Your task to perform on an android device: uninstall "Facebook Lite" Image 0: 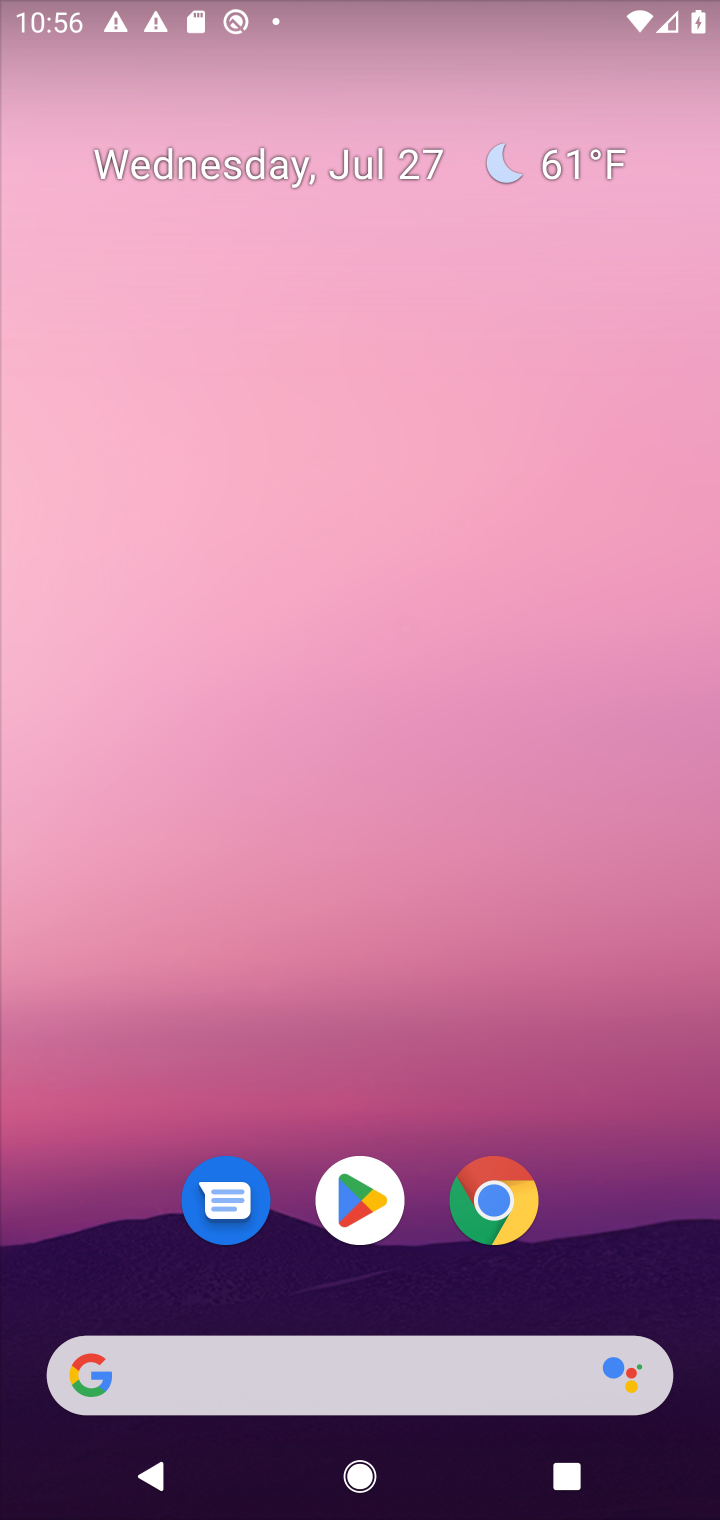
Step 0: click (344, 1211)
Your task to perform on an android device: uninstall "Facebook Lite" Image 1: 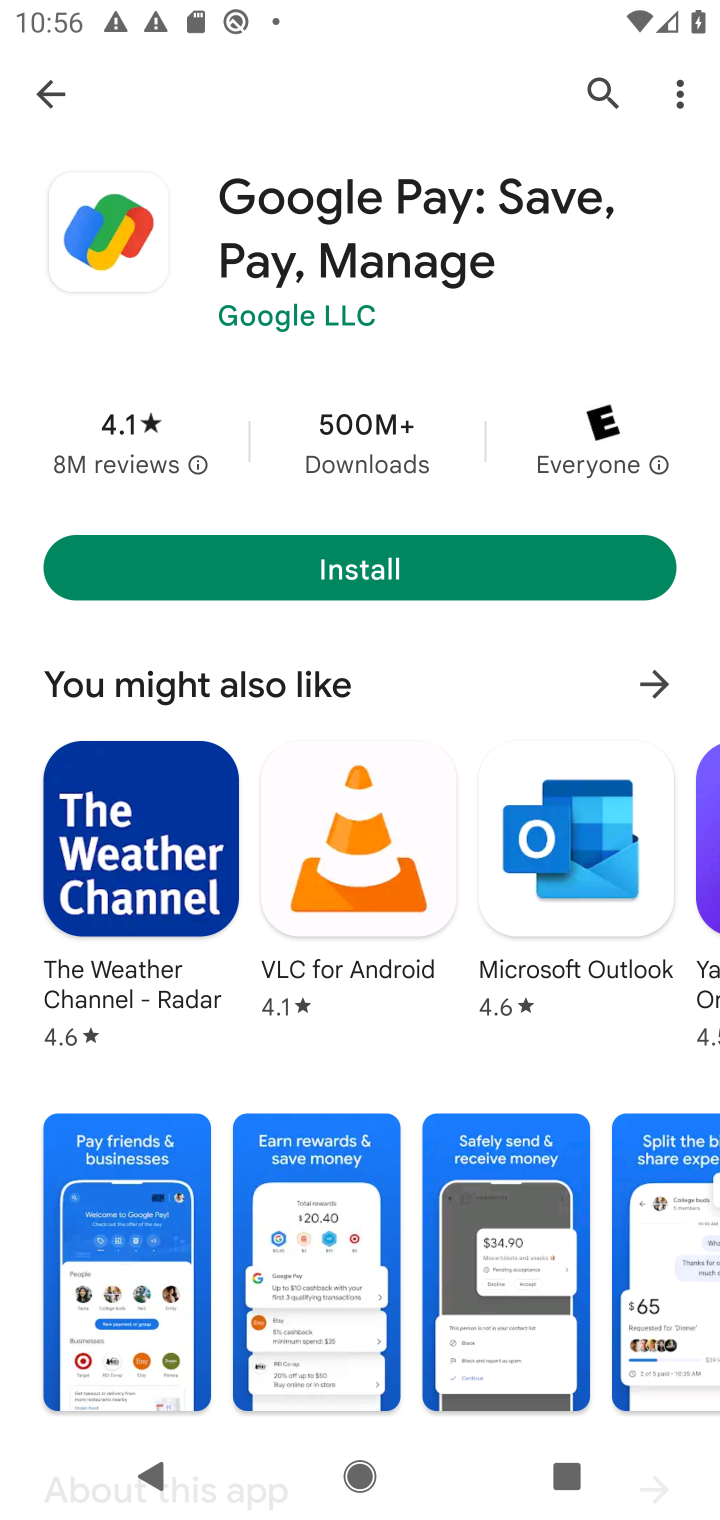
Step 1: click (52, 99)
Your task to perform on an android device: uninstall "Facebook Lite" Image 2: 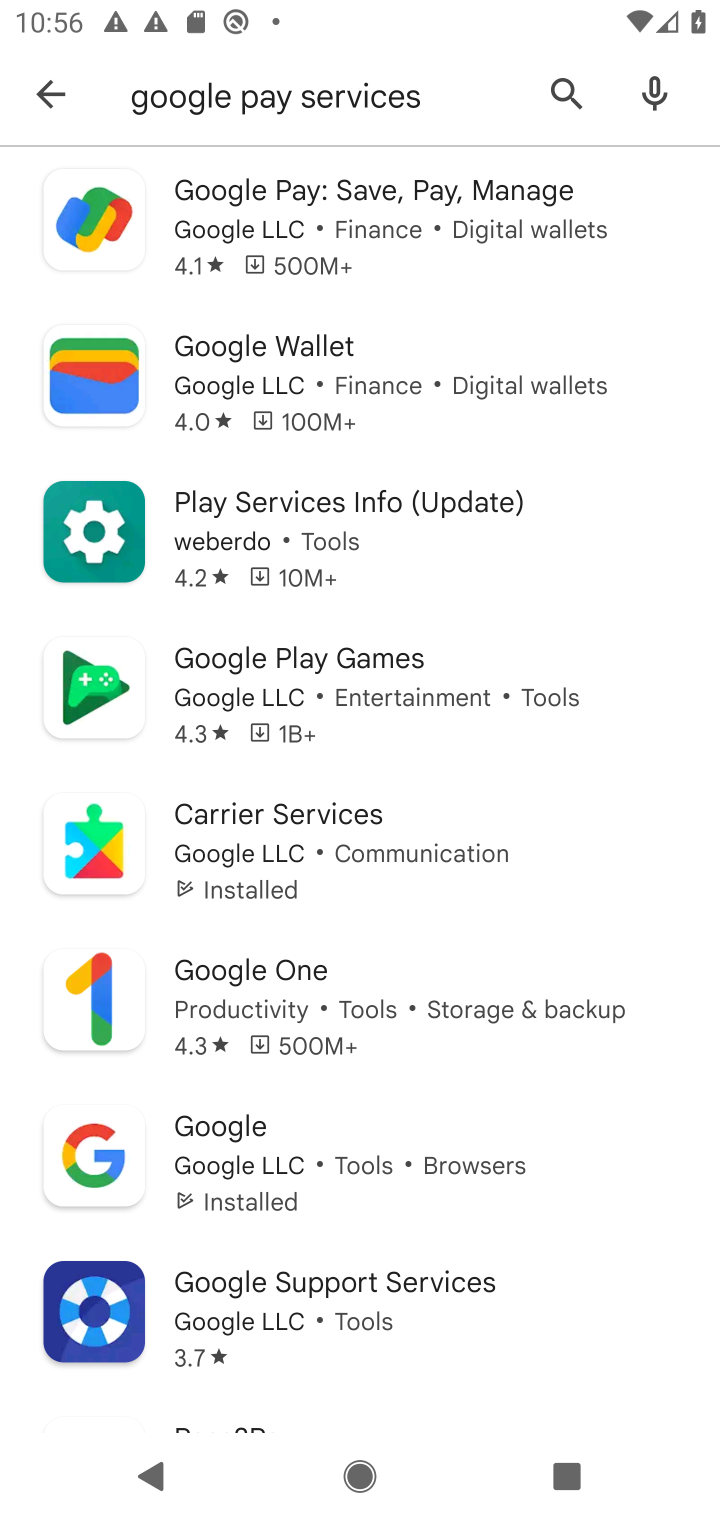
Step 2: click (555, 95)
Your task to perform on an android device: uninstall "Facebook Lite" Image 3: 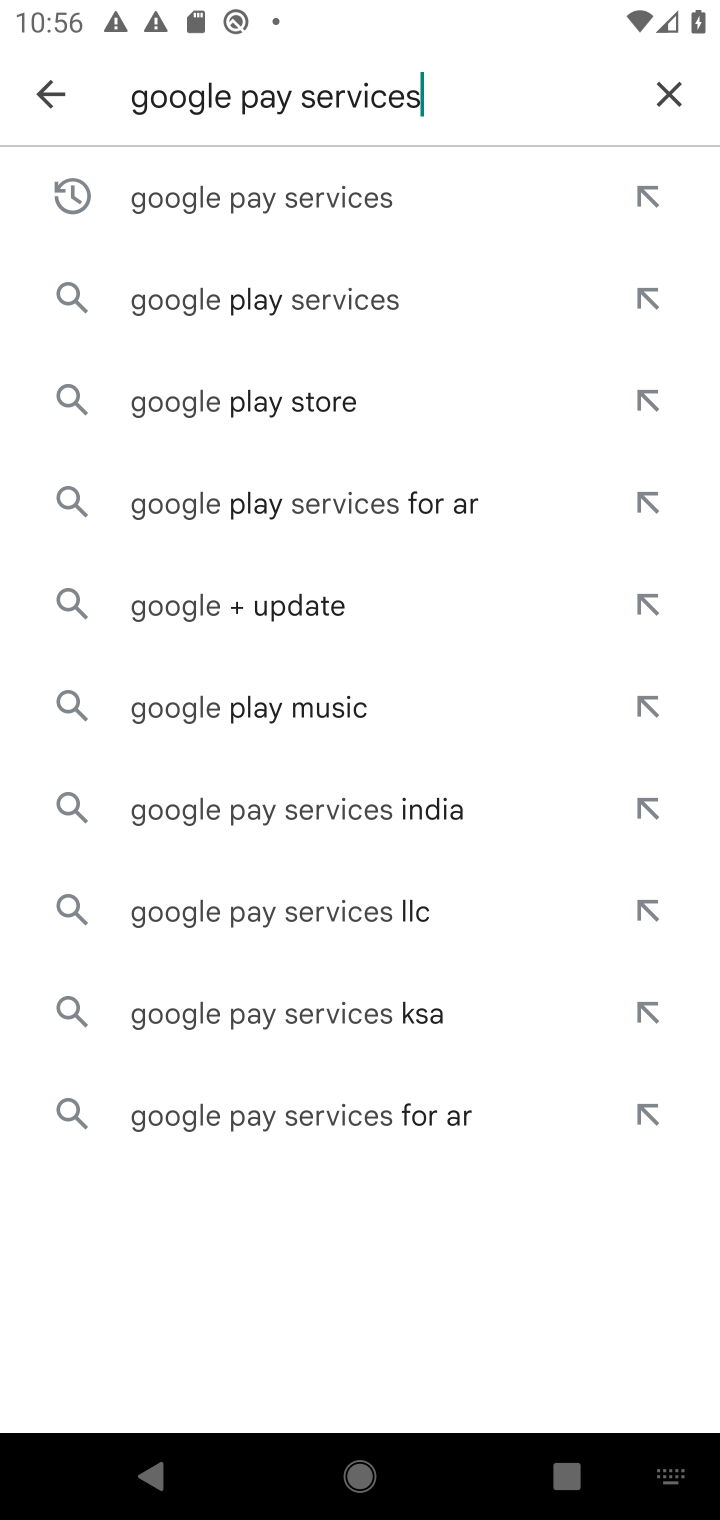
Step 3: click (651, 86)
Your task to perform on an android device: uninstall "Facebook Lite" Image 4: 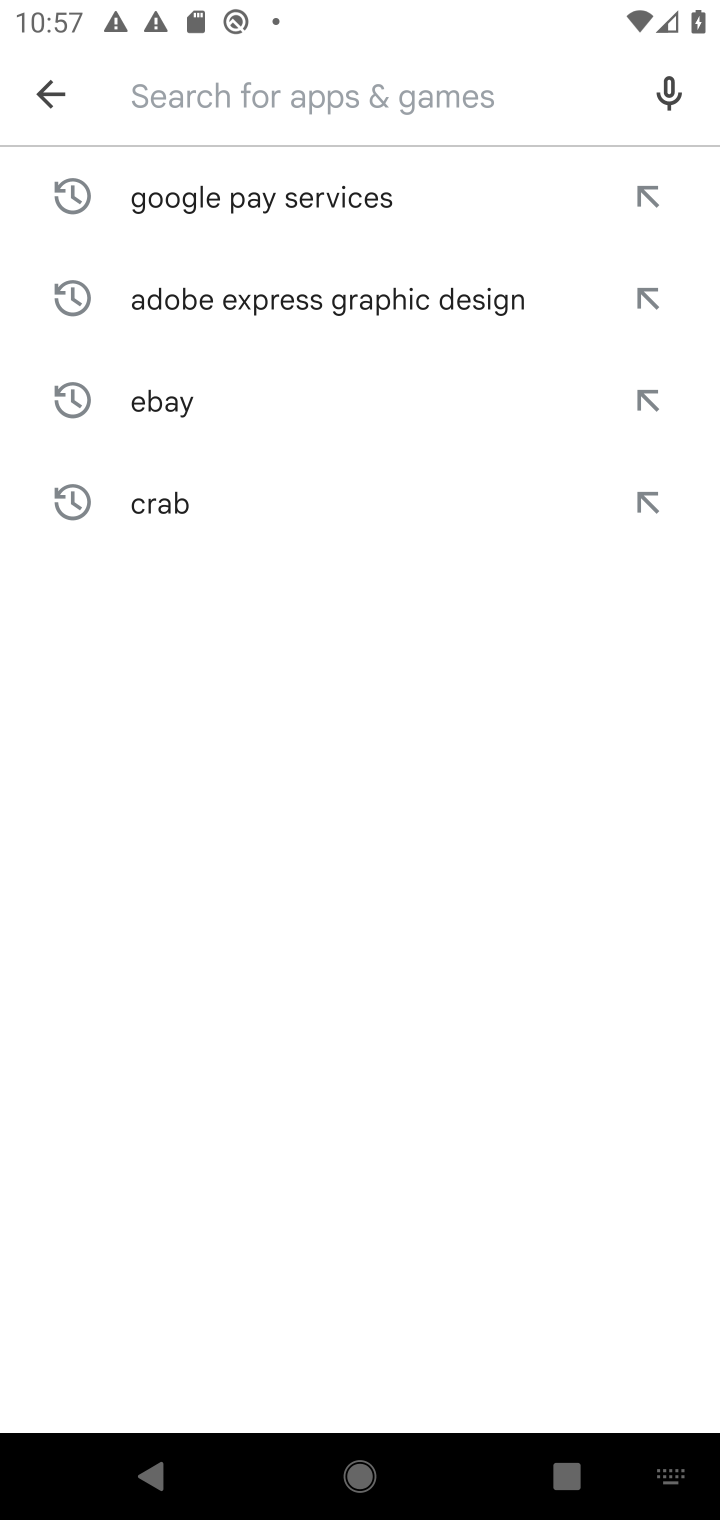
Step 4: type "facebook lite"
Your task to perform on an android device: uninstall "Facebook Lite" Image 5: 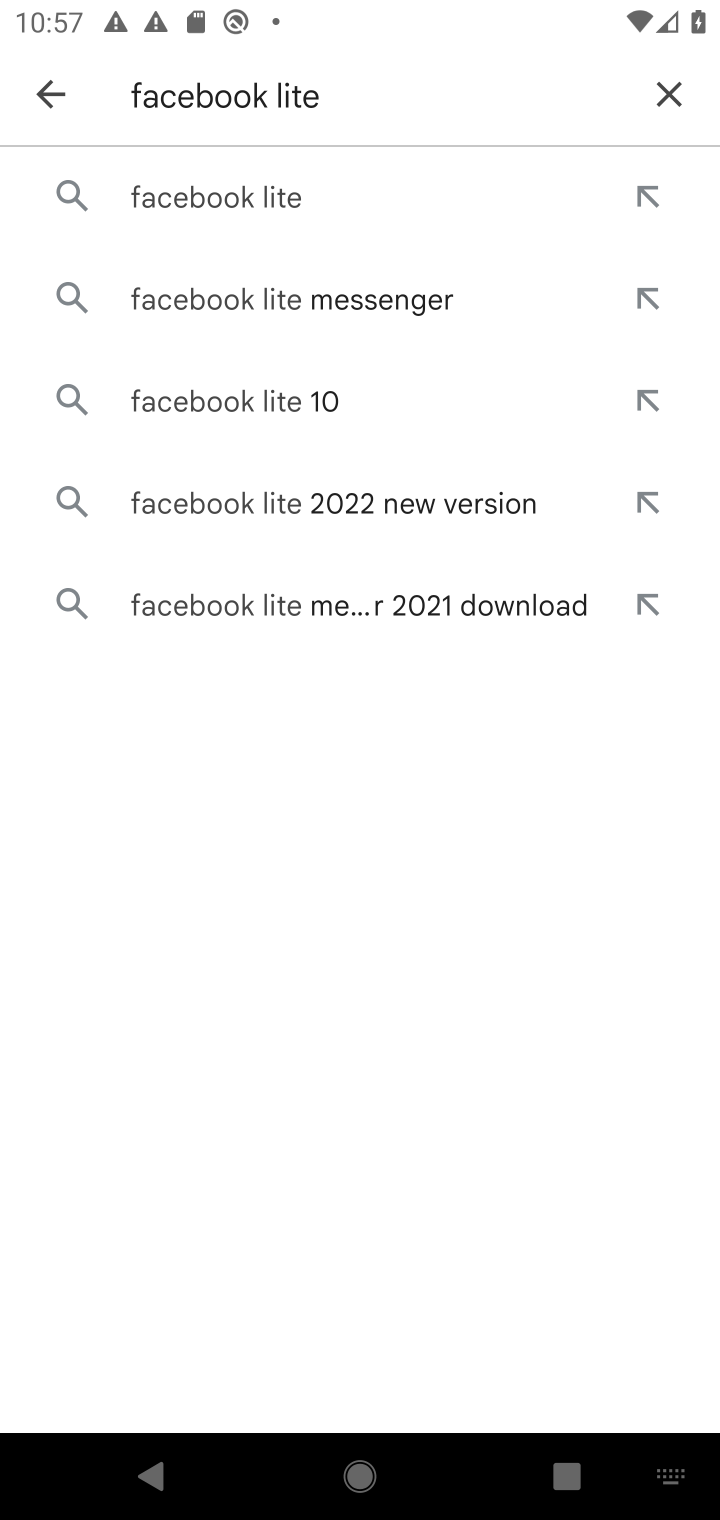
Step 5: click (245, 197)
Your task to perform on an android device: uninstall "Facebook Lite" Image 6: 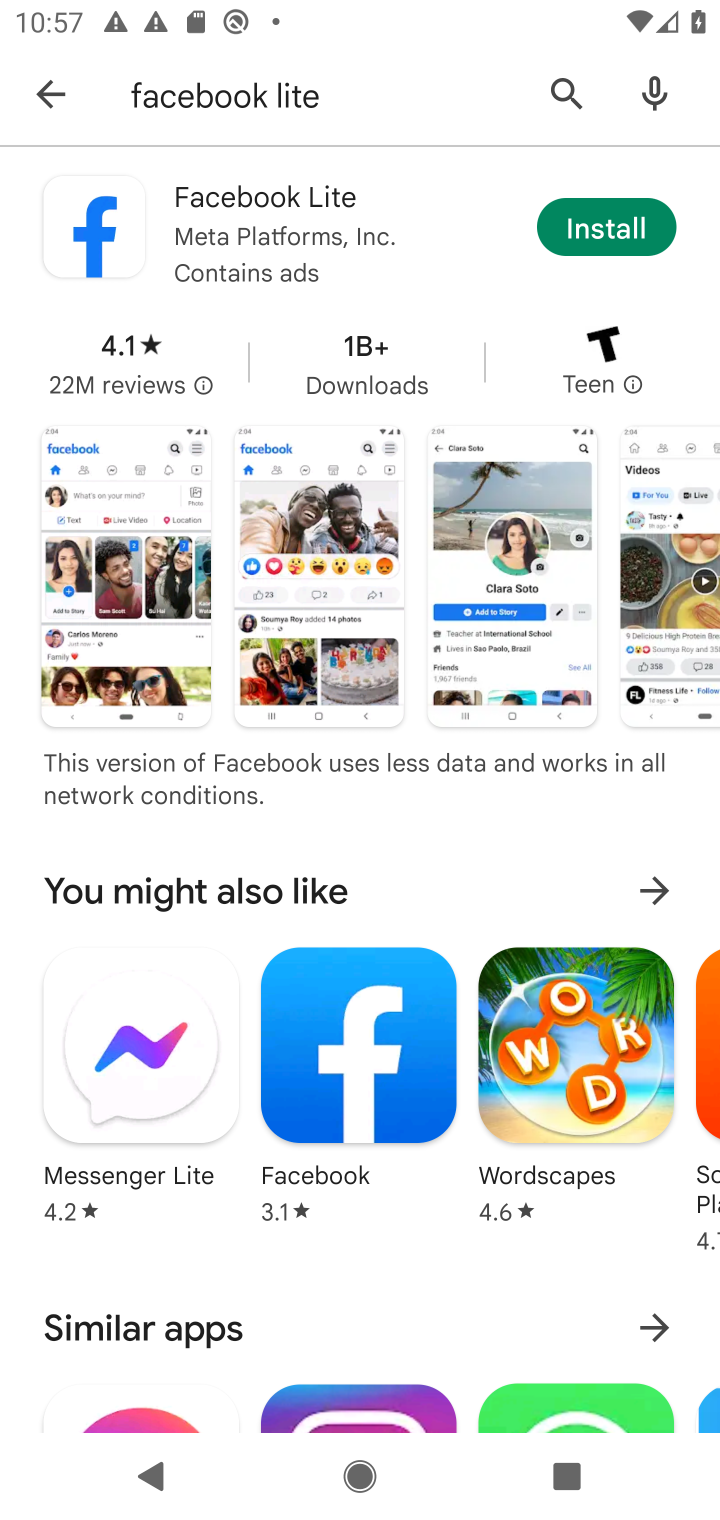
Step 6: task complete